Your task to perform on an android device: turn on notifications settings in the gmail app Image 0: 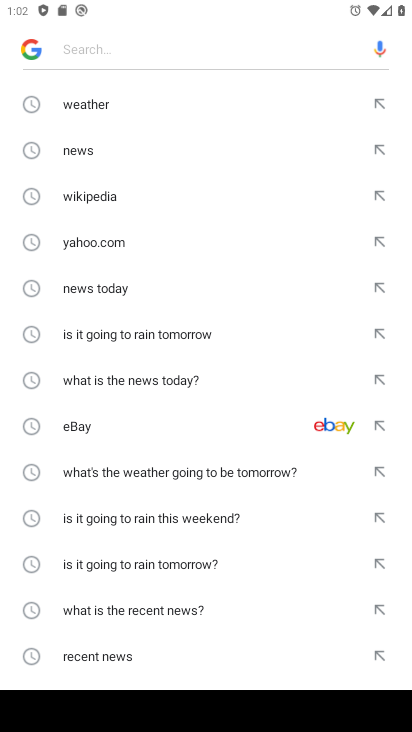
Step 0: press home button
Your task to perform on an android device: turn on notifications settings in the gmail app Image 1: 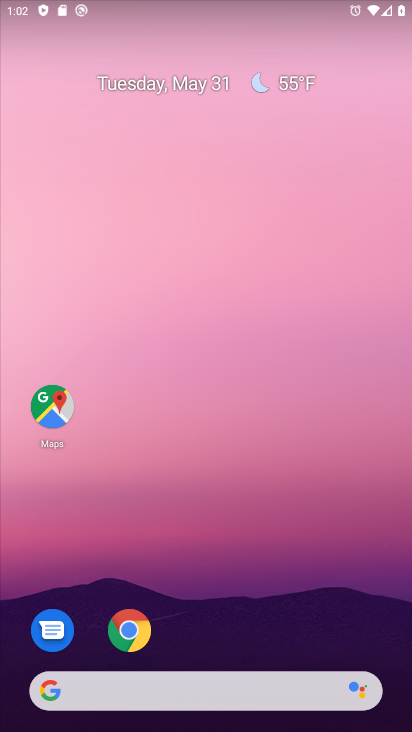
Step 1: drag from (147, 671) to (169, 303)
Your task to perform on an android device: turn on notifications settings in the gmail app Image 2: 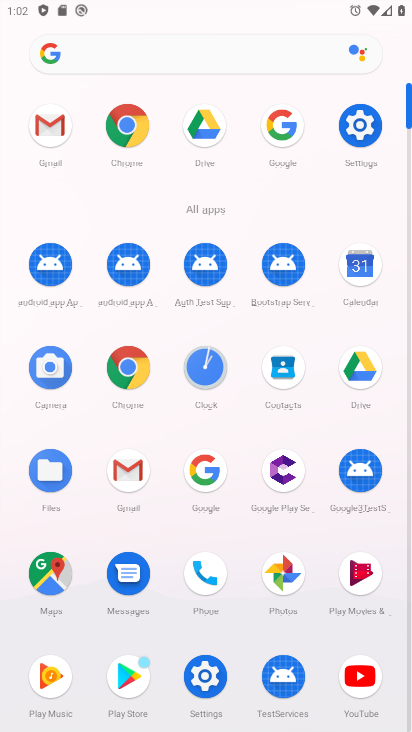
Step 2: click (134, 473)
Your task to perform on an android device: turn on notifications settings in the gmail app Image 3: 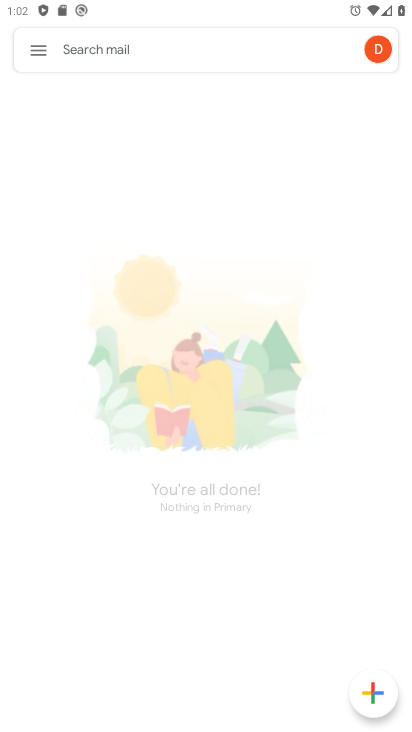
Step 3: click (39, 55)
Your task to perform on an android device: turn on notifications settings in the gmail app Image 4: 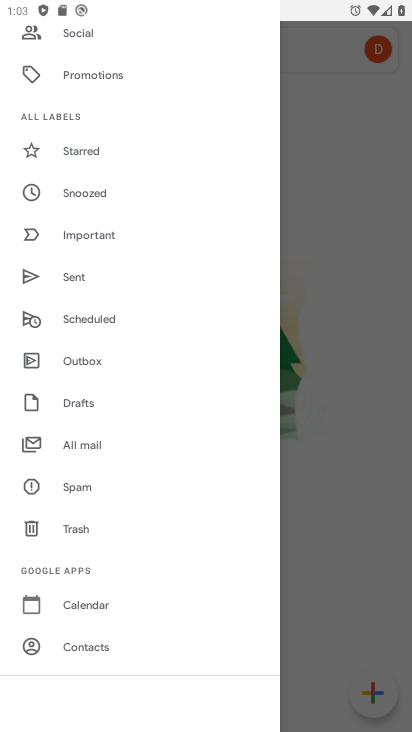
Step 4: drag from (90, 657) to (91, 309)
Your task to perform on an android device: turn on notifications settings in the gmail app Image 5: 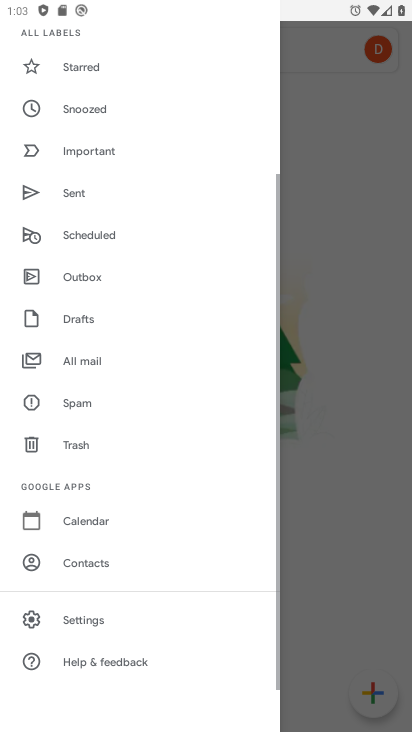
Step 5: click (91, 612)
Your task to perform on an android device: turn on notifications settings in the gmail app Image 6: 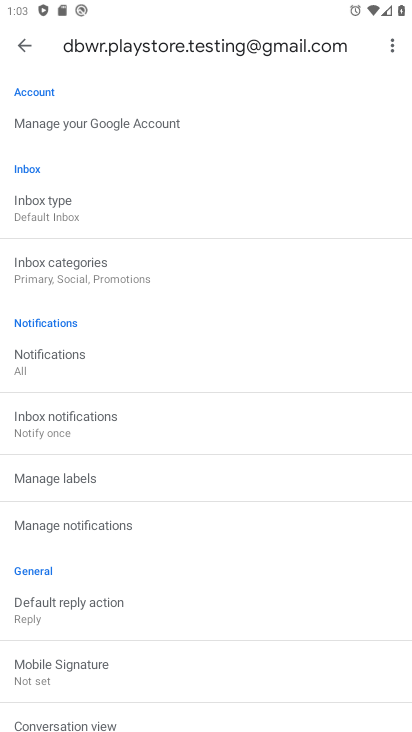
Step 6: click (17, 41)
Your task to perform on an android device: turn on notifications settings in the gmail app Image 7: 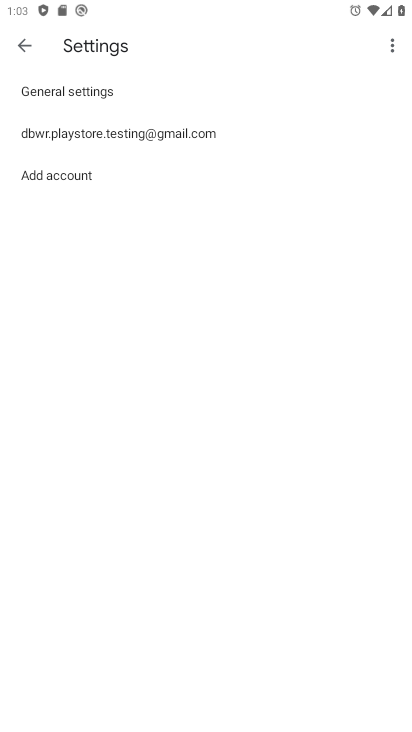
Step 7: click (84, 93)
Your task to perform on an android device: turn on notifications settings in the gmail app Image 8: 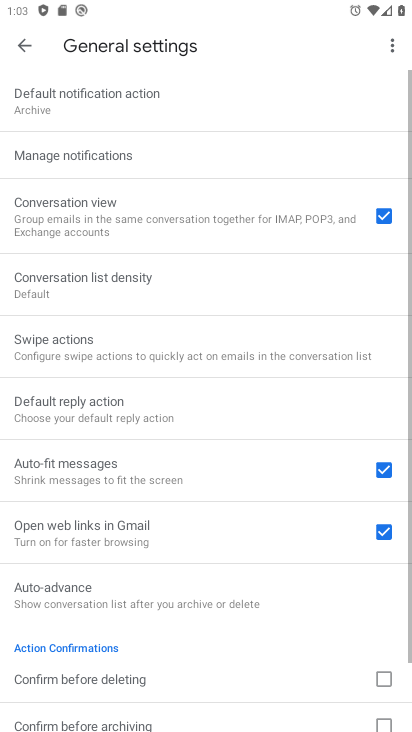
Step 8: click (104, 161)
Your task to perform on an android device: turn on notifications settings in the gmail app Image 9: 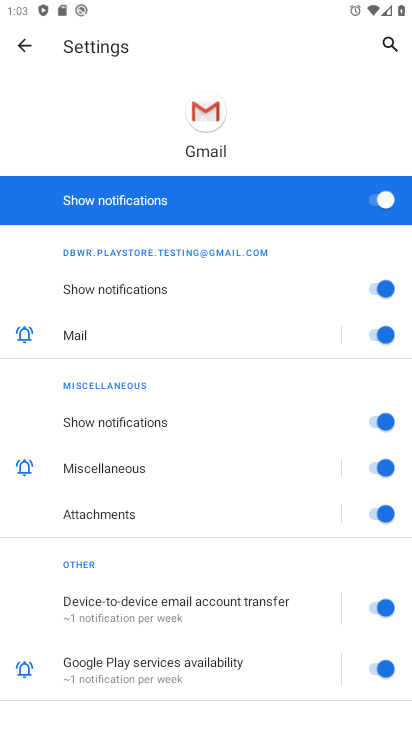
Step 9: task complete